Your task to perform on an android device: Open network settings Image 0: 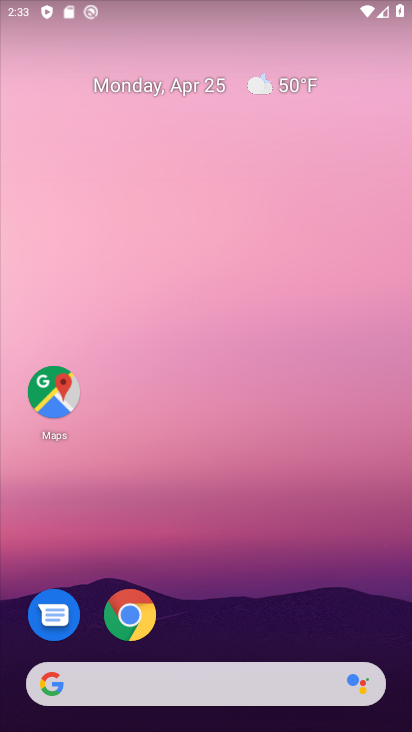
Step 0: drag from (190, 729) to (185, 114)
Your task to perform on an android device: Open network settings Image 1: 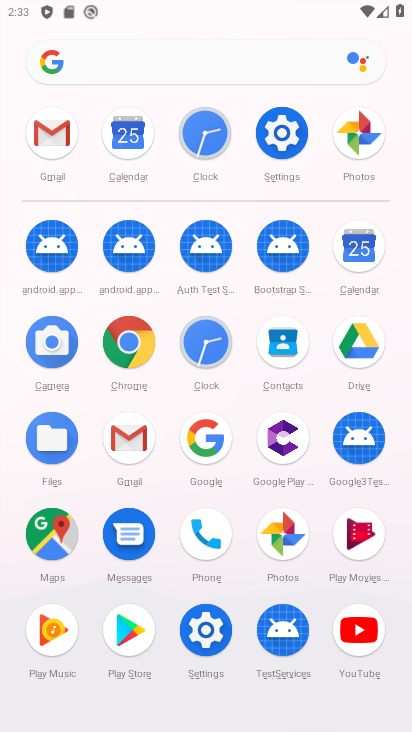
Step 1: click (286, 136)
Your task to perform on an android device: Open network settings Image 2: 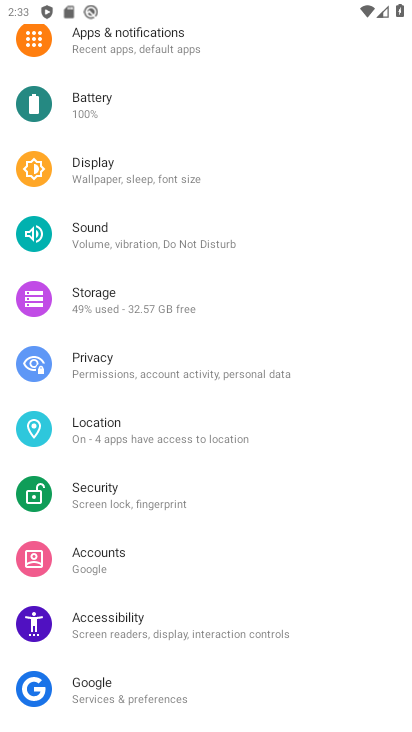
Step 2: drag from (217, 79) to (224, 411)
Your task to perform on an android device: Open network settings Image 3: 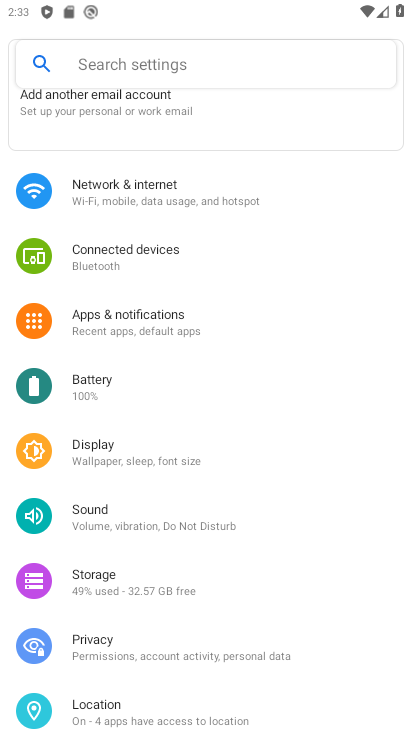
Step 3: click (127, 187)
Your task to perform on an android device: Open network settings Image 4: 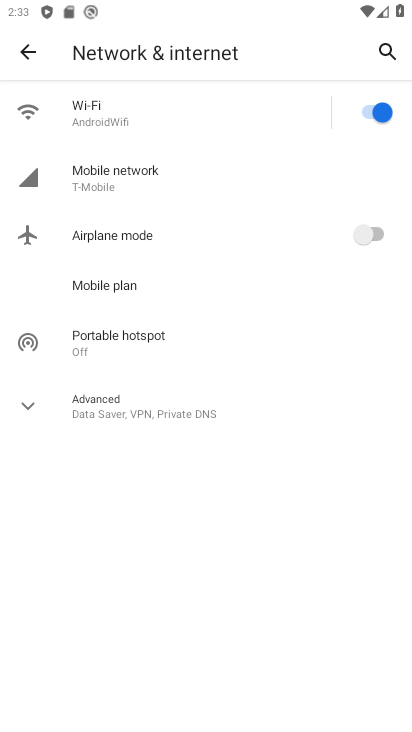
Step 4: task complete